Your task to perform on an android device: turn pop-ups on in chrome Image 0: 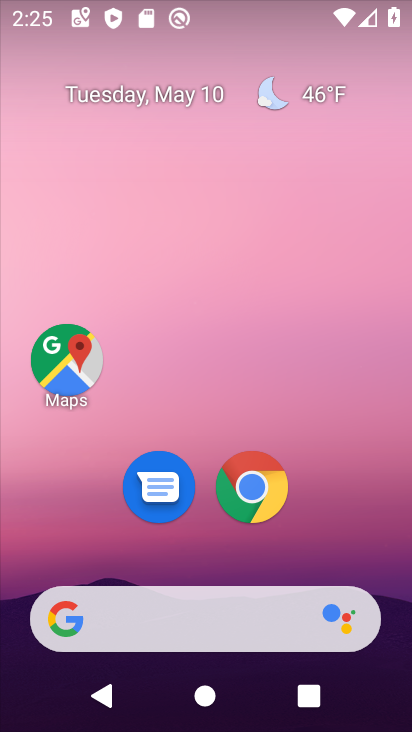
Step 0: click (259, 489)
Your task to perform on an android device: turn pop-ups on in chrome Image 1: 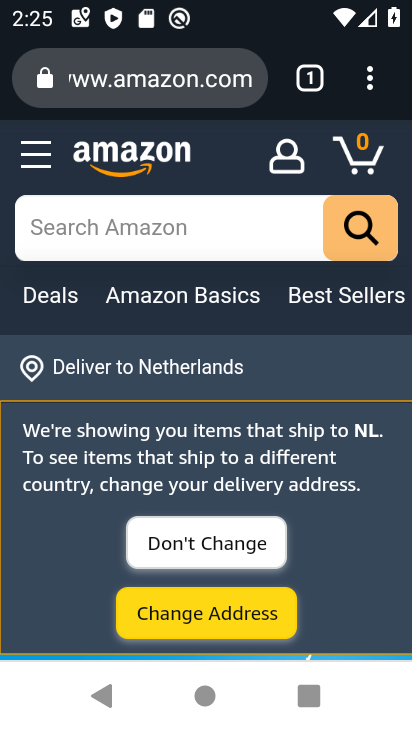
Step 1: click (204, 699)
Your task to perform on an android device: turn pop-ups on in chrome Image 2: 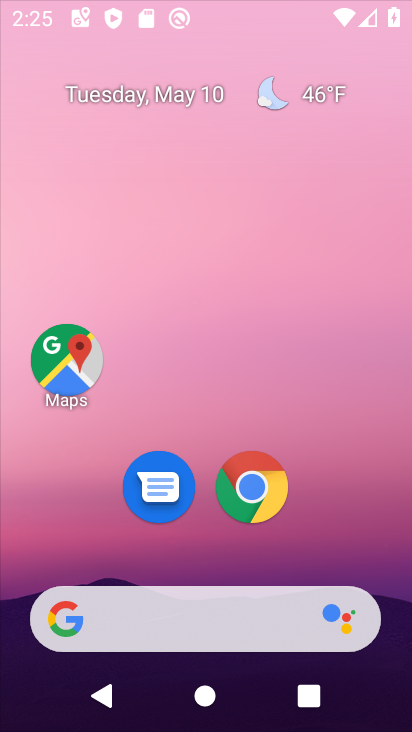
Step 2: click (204, 699)
Your task to perform on an android device: turn pop-ups on in chrome Image 3: 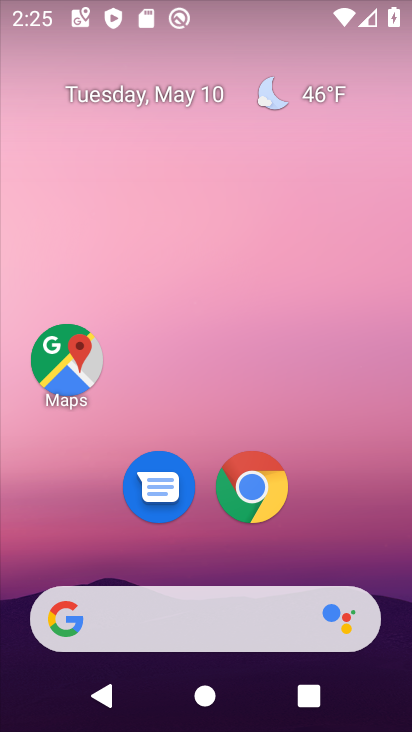
Step 3: click (249, 499)
Your task to perform on an android device: turn pop-ups on in chrome Image 4: 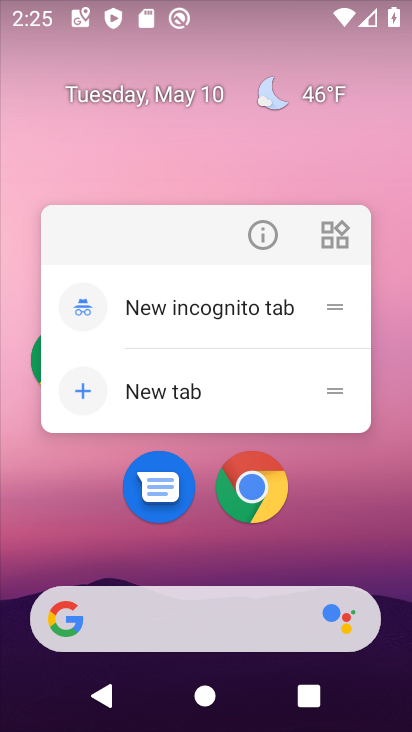
Step 4: click (262, 236)
Your task to perform on an android device: turn pop-ups on in chrome Image 5: 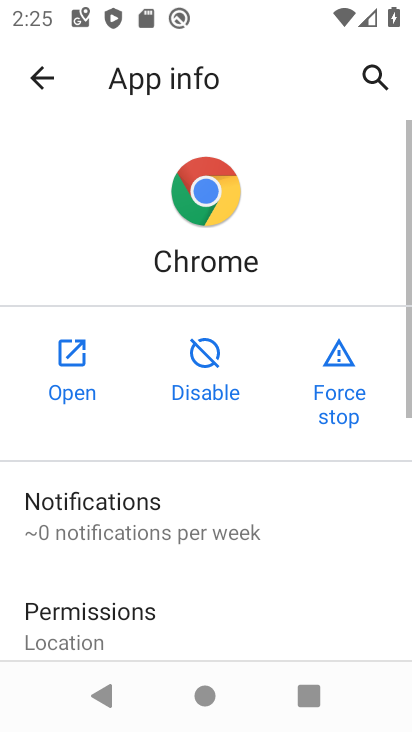
Step 5: drag from (286, 643) to (218, 114)
Your task to perform on an android device: turn pop-ups on in chrome Image 6: 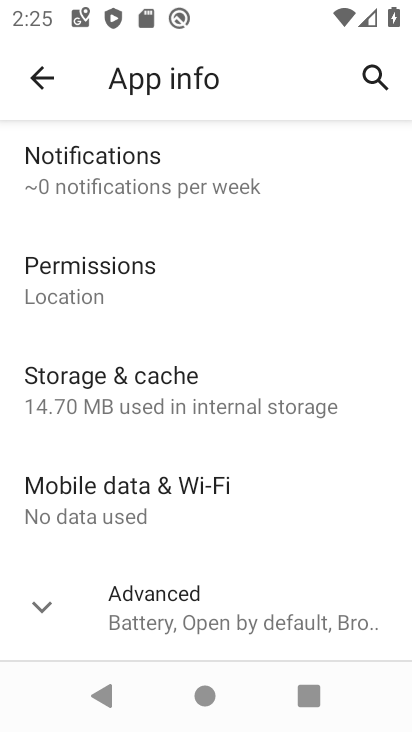
Step 6: drag from (277, 478) to (306, 8)
Your task to perform on an android device: turn pop-ups on in chrome Image 7: 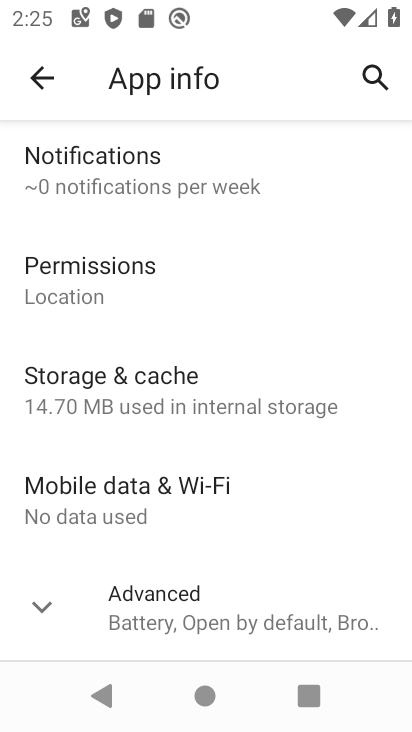
Step 7: click (178, 604)
Your task to perform on an android device: turn pop-ups on in chrome Image 8: 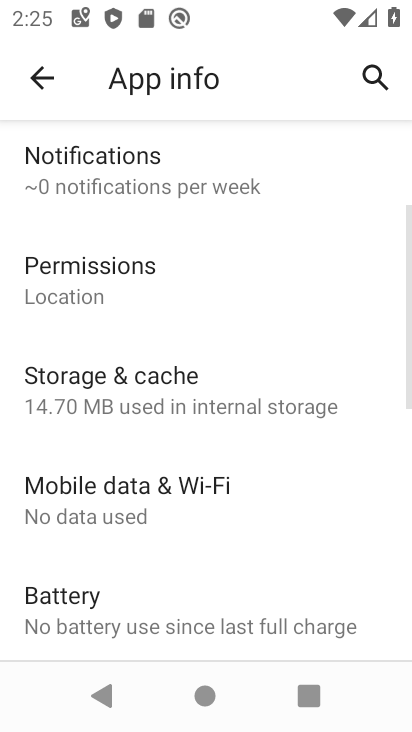
Step 8: drag from (263, 573) to (311, 102)
Your task to perform on an android device: turn pop-ups on in chrome Image 9: 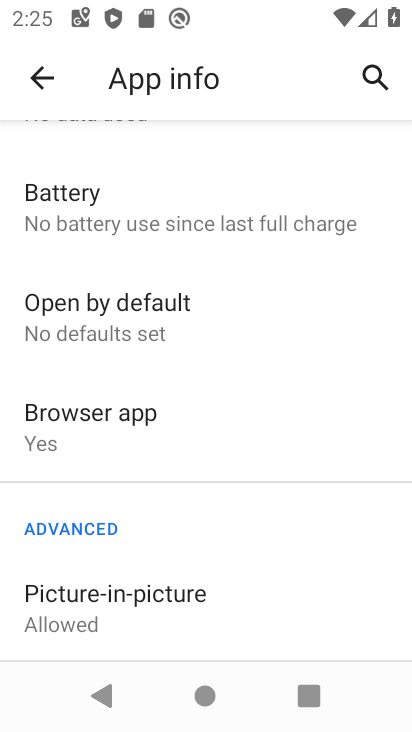
Step 9: drag from (273, 609) to (293, 241)
Your task to perform on an android device: turn pop-ups on in chrome Image 10: 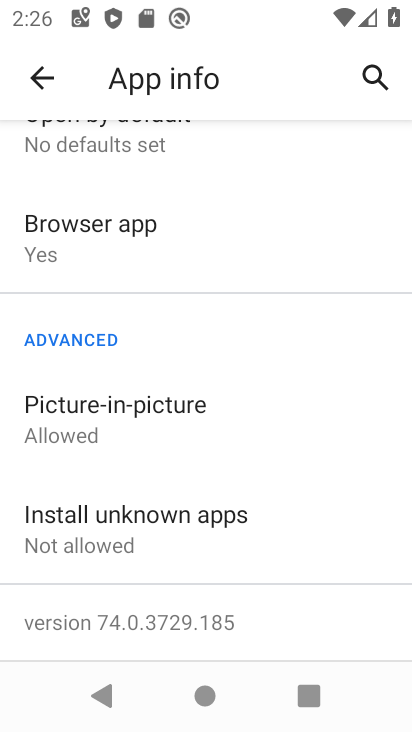
Step 10: click (76, 420)
Your task to perform on an android device: turn pop-ups on in chrome Image 11: 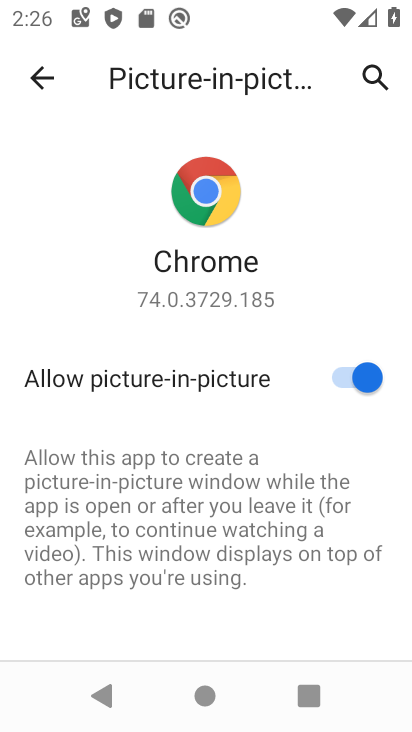
Step 11: click (39, 72)
Your task to perform on an android device: turn pop-ups on in chrome Image 12: 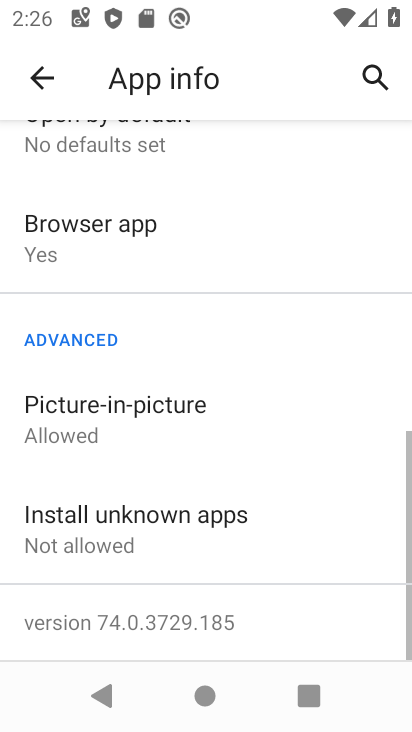
Step 12: click (42, 72)
Your task to perform on an android device: turn pop-ups on in chrome Image 13: 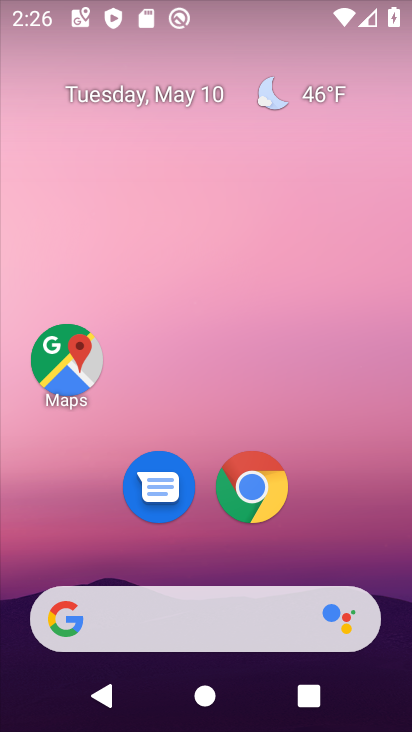
Step 13: click (253, 486)
Your task to perform on an android device: turn pop-ups on in chrome Image 14: 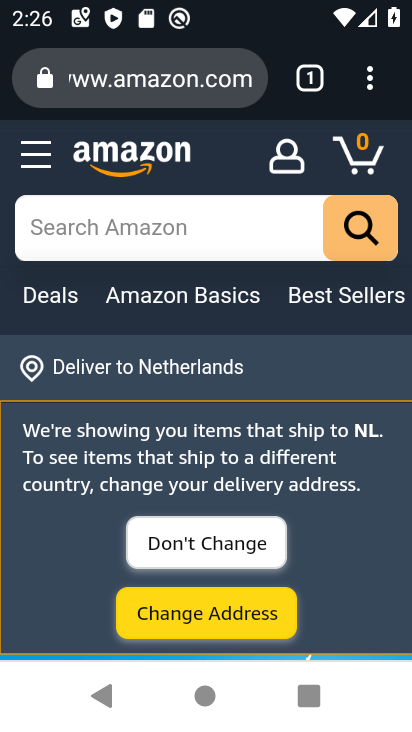
Step 14: drag from (369, 83) to (178, 563)
Your task to perform on an android device: turn pop-ups on in chrome Image 15: 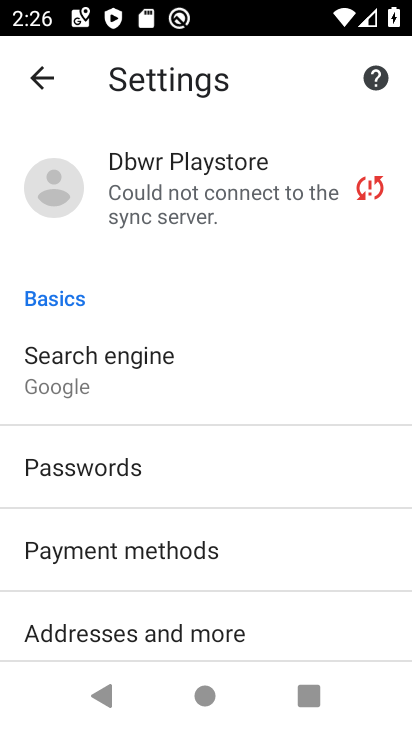
Step 15: drag from (280, 668) to (249, 144)
Your task to perform on an android device: turn pop-ups on in chrome Image 16: 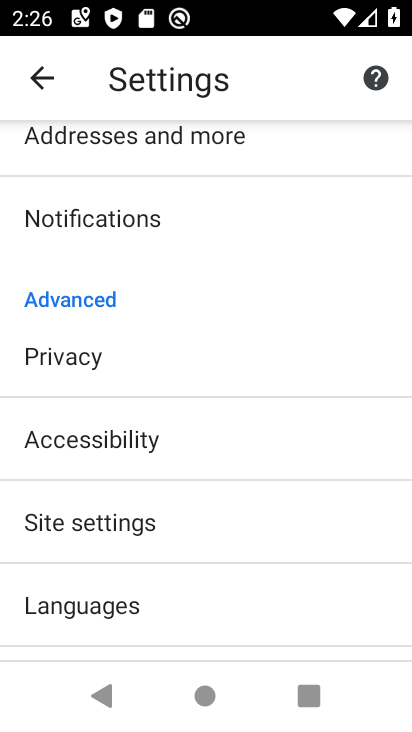
Step 16: click (188, 519)
Your task to perform on an android device: turn pop-ups on in chrome Image 17: 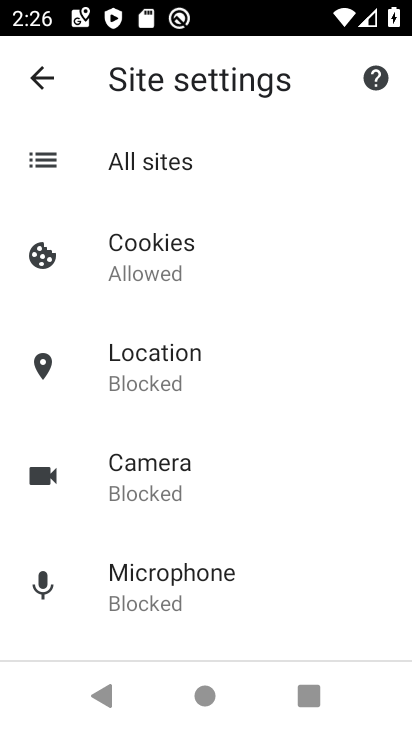
Step 17: drag from (207, 547) to (266, 216)
Your task to perform on an android device: turn pop-ups on in chrome Image 18: 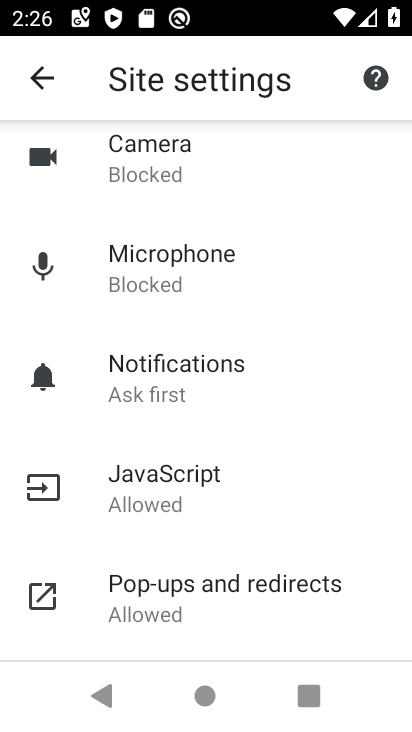
Step 18: drag from (239, 601) to (298, 346)
Your task to perform on an android device: turn pop-ups on in chrome Image 19: 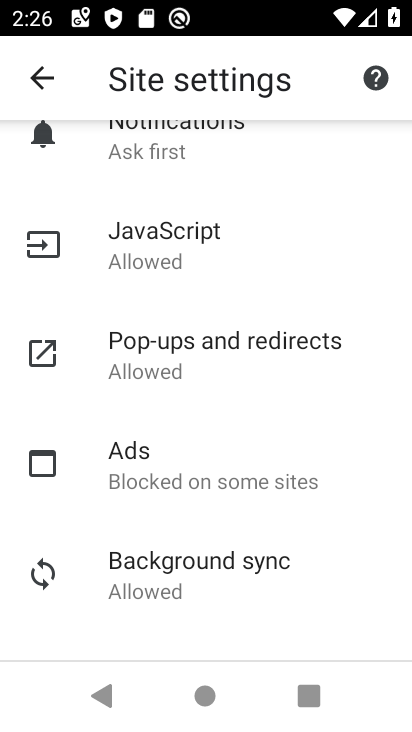
Step 19: click (244, 347)
Your task to perform on an android device: turn pop-ups on in chrome Image 20: 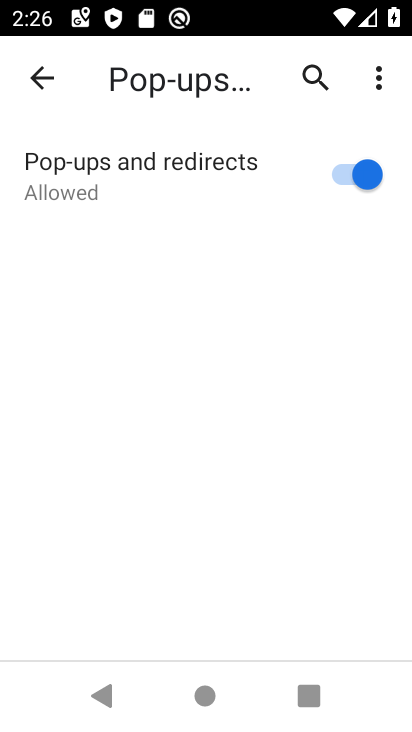
Step 20: task complete